Your task to perform on an android device: add a contact in the contacts app Image 0: 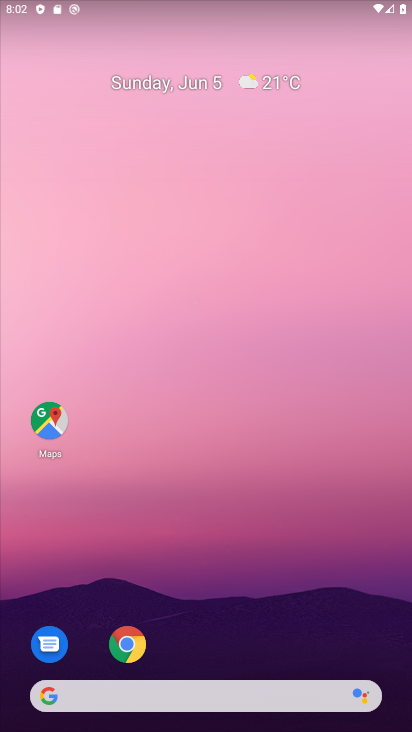
Step 0: task complete